Your task to perform on an android device: change the upload size in google photos Image 0: 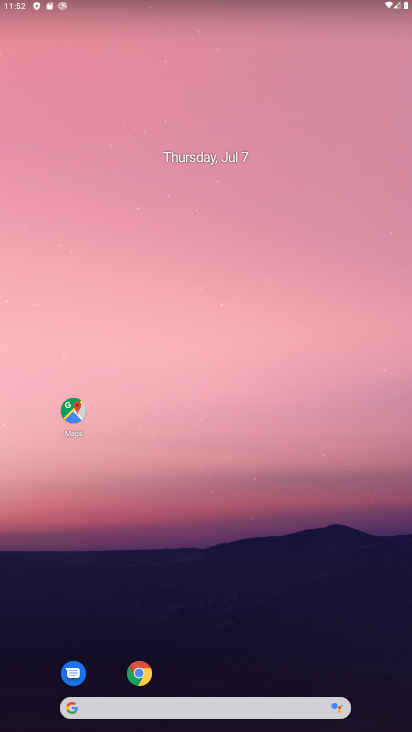
Step 0: drag from (220, 607) to (211, 154)
Your task to perform on an android device: change the upload size in google photos Image 1: 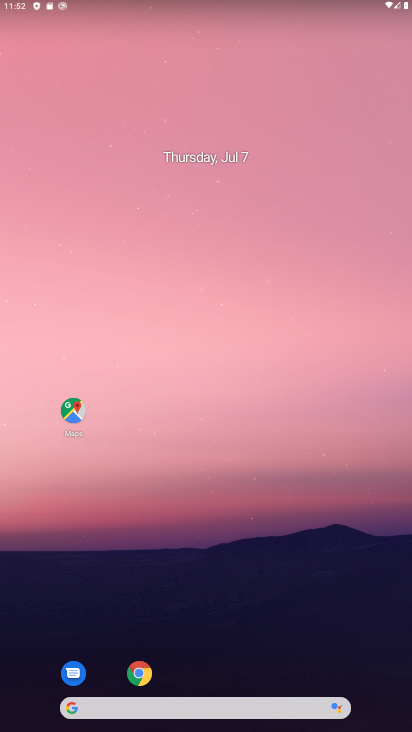
Step 1: drag from (226, 616) to (186, 71)
Your task to perform on an android device: change the upload size in google photos Image 2: 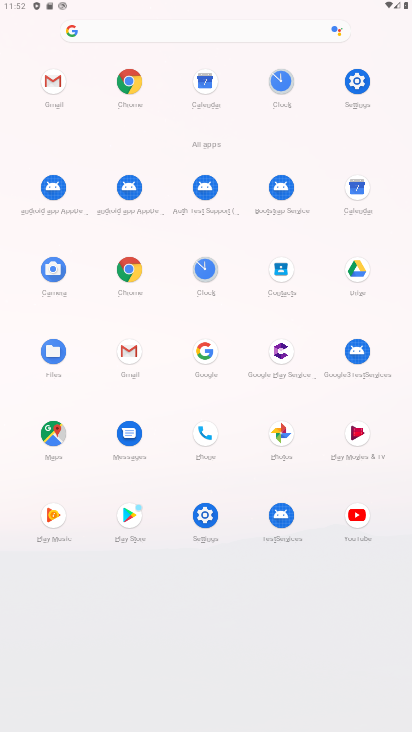
Step 2: click (283, 436)
Your task to perform on an android device: change the upload size in google photos Image 3: 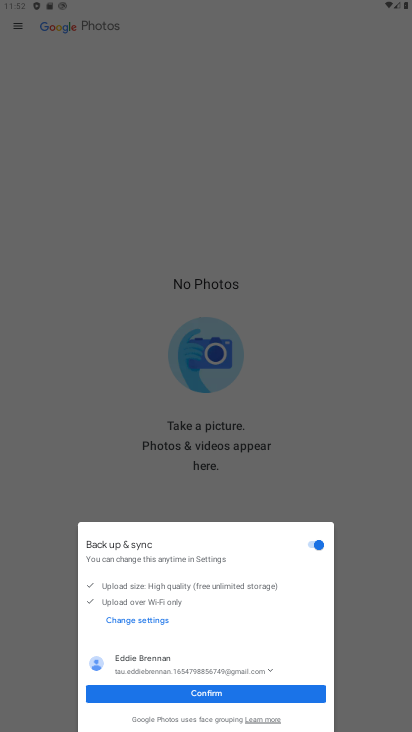
Step 3: click (160, 688)
Your task to perform on an android device: change the upload size in google photos Image 4: 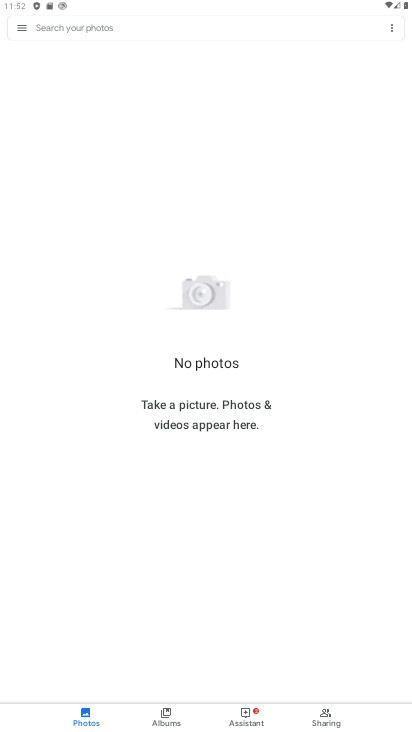
Step 4: click (22, 28)
Your task to perform on an android device: change the upload size in google photos Image 5: 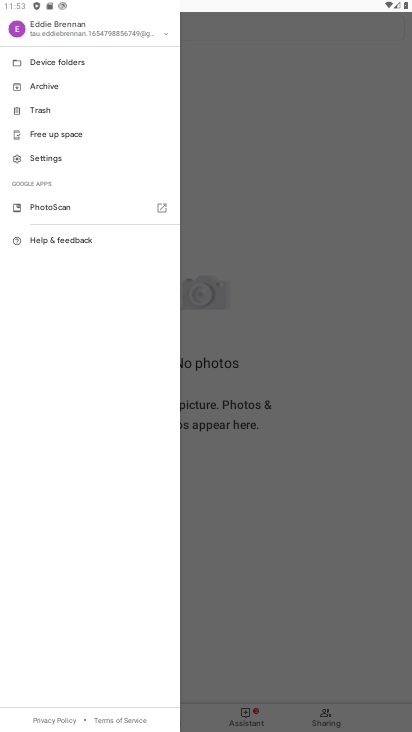
Step 5: click (49, 159)
Your task to perform on an android device: change the upload size in google photos Image 6: 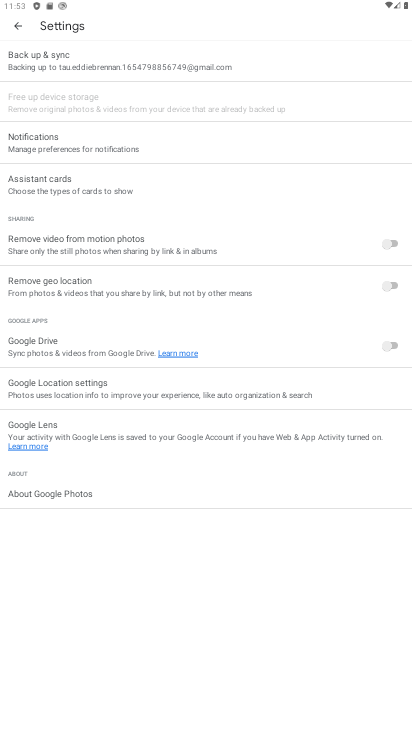
Step 6: click (82, 63)
Your task to perform on an android device: change the upload size in google photos Image 7: 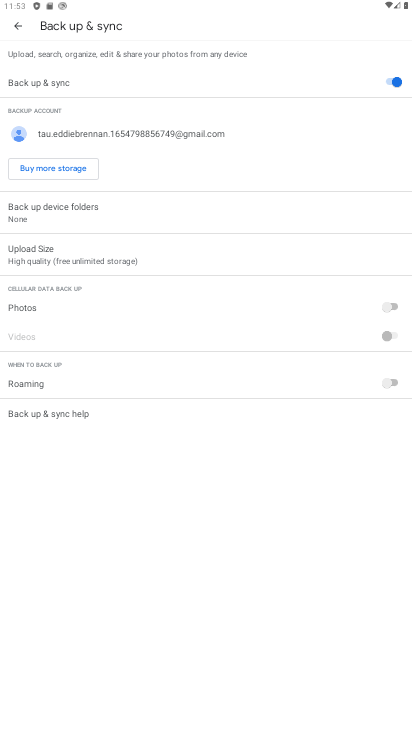
Step 7: click (54, 257)
Your task to perform on an android device: change the upload size in google photos Image 8: 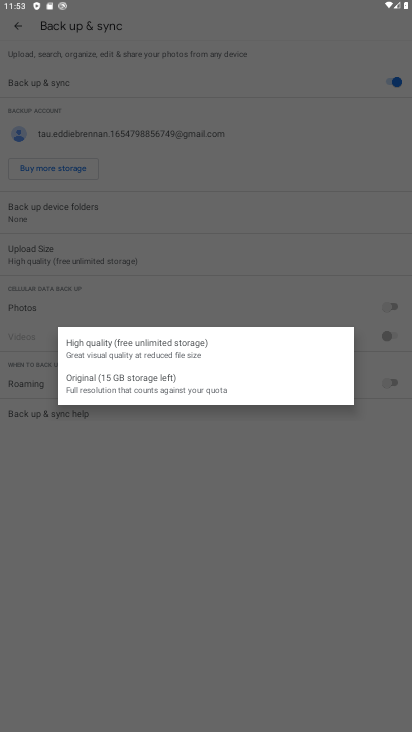
Step 8: click (103, 388)
Your task to perform on an android device: change the upload size in google photos Image 9: 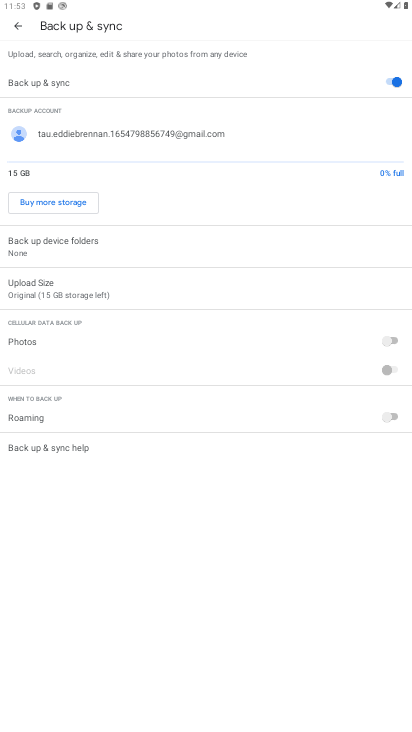
Step 9: task complete